Your task to perform on an android device: Go to internet settings Image 0: 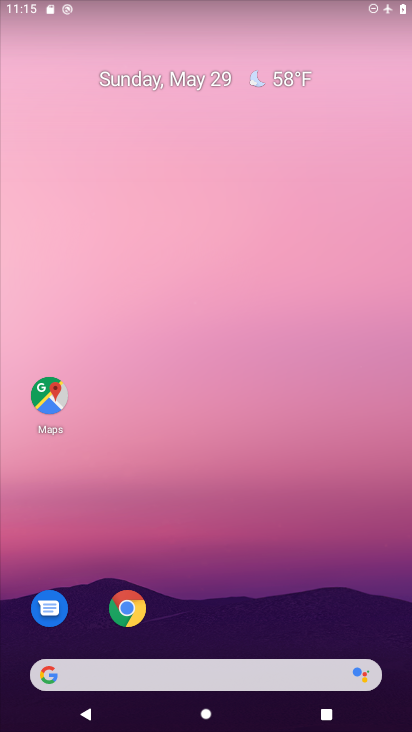
Step 0: drag from (209, 610) to (247, 304)
Your task to perform on an android device: Go to internet settings Image 1: 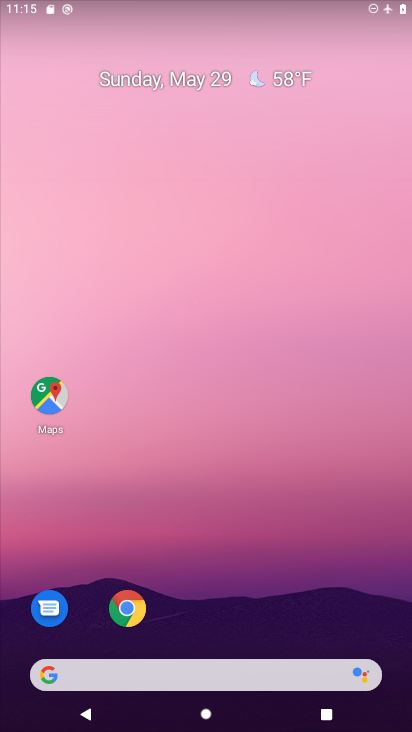
Step 1: drag from (254, 491) to (250, 229)
Your task to perform on an android device: Go to internet settings Image 2: 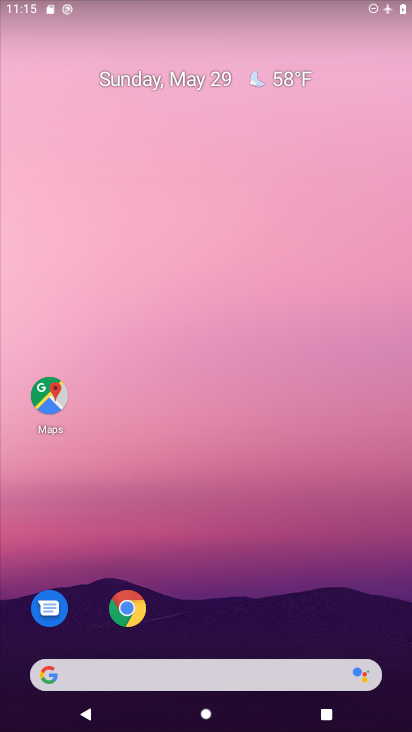
Step 2: drag from (240, 661) to (240, 154)
Your task to perform on an android device: Go to internet settings Image 3: 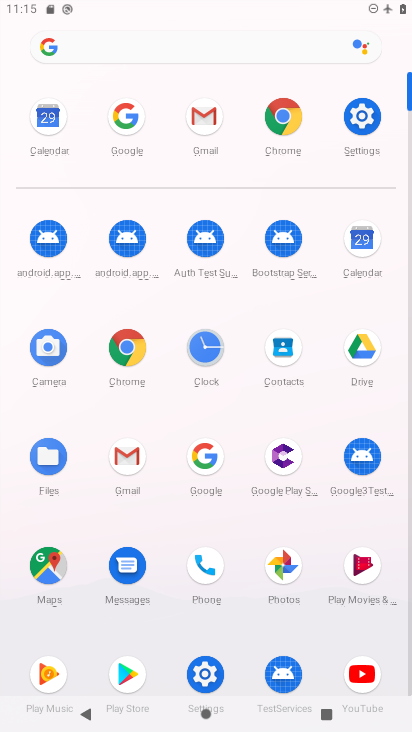
Step 3: click (371, 111)
Your task to perform on an android device: Go to internet settings Image 4: 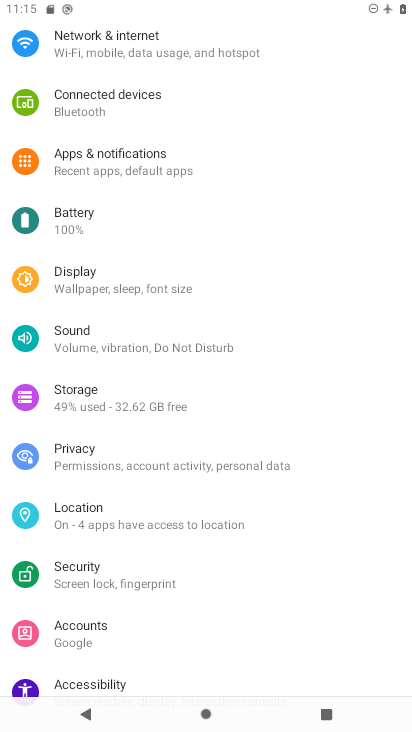
Step 4: click (166, 48)
Your task to perform on an android device: Go to internet settings Image 5: 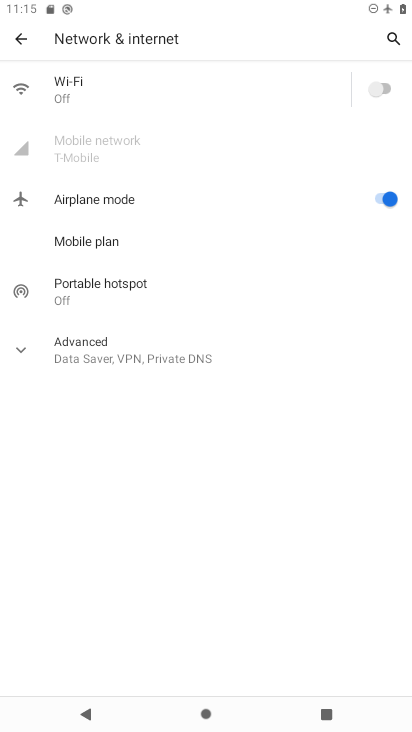
Step 5: click (114, 353)
Your task to perform on an android device: Go to internet settings Image 6: 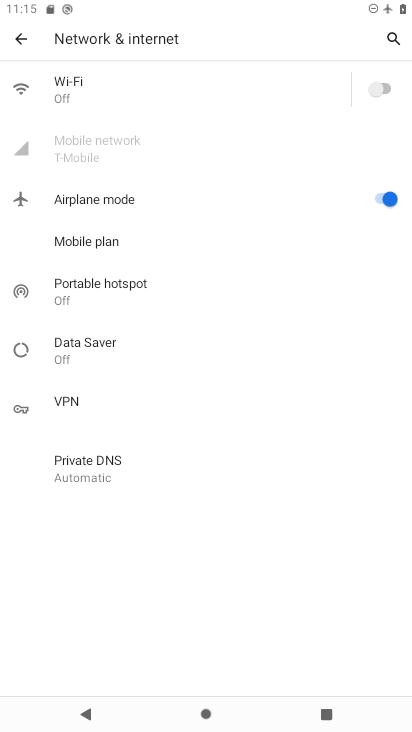
Step 6: task complete